Your task to perform on an android device: Open the calendar and show me this week's events Image 0: 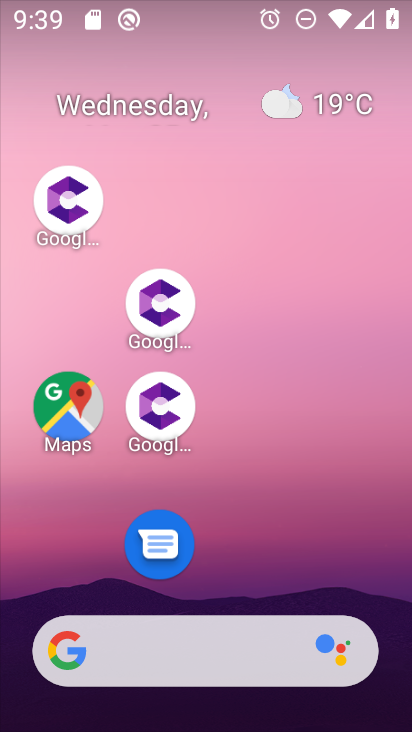
Step 0: drag from (253, 570) to (262, 151)
Your task to perform on an android device: Open the calendar and show me this week's events Image 1: 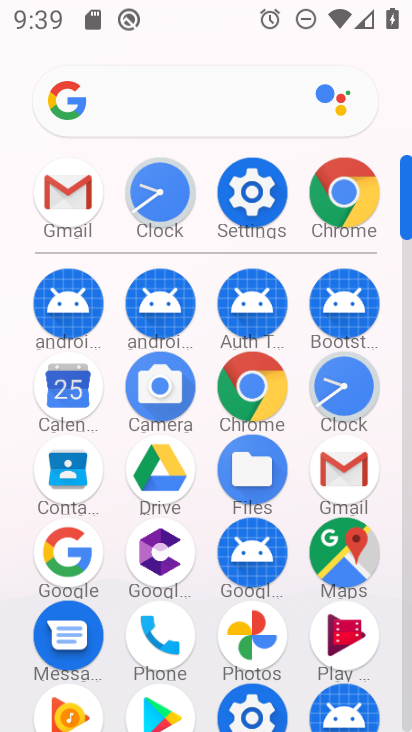
Step 1: click (59, 393)
Your task to perform on an android device: Open the calendar and show me this week's events Image 2: 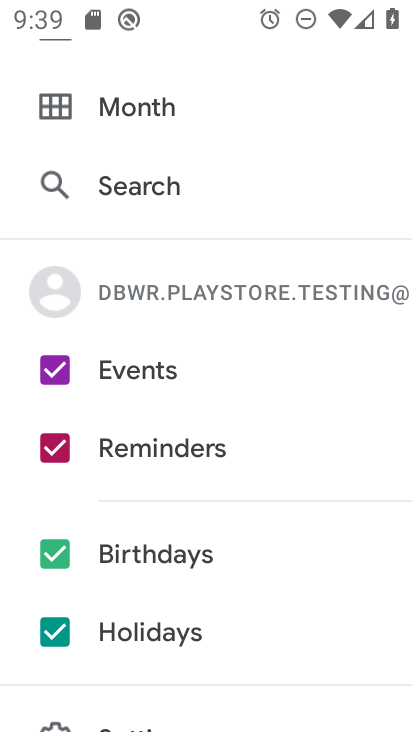
Step 2: drag from (207, 137) to (181, 461)
Your task to perform on an android device: Open the calendar and show me this week's events Image 3: 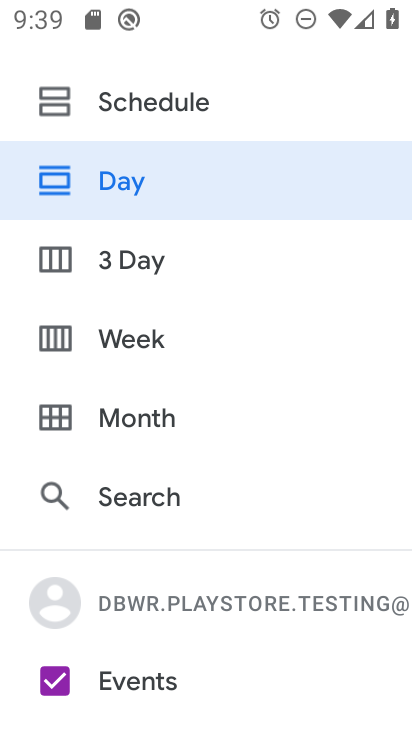
Step 3: drag from (231, 169) to (245, 477)
Your task to perform on an android device: Open the calendar and show me this week's events Image 4: 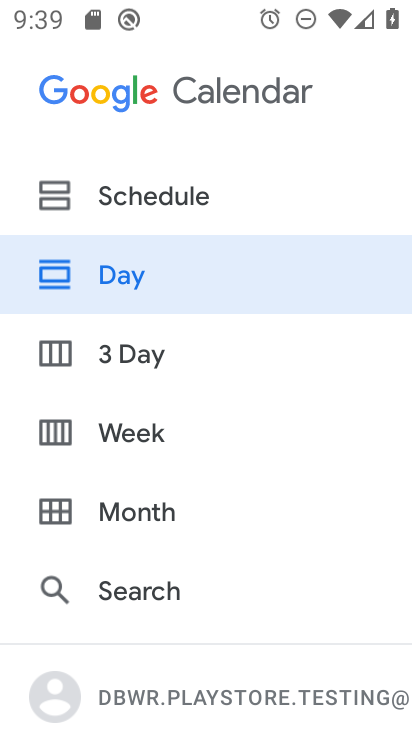
Step 4: click (139, 434)
Your task to perform on an android device: Open the calendar and show me this week's events Image 5: 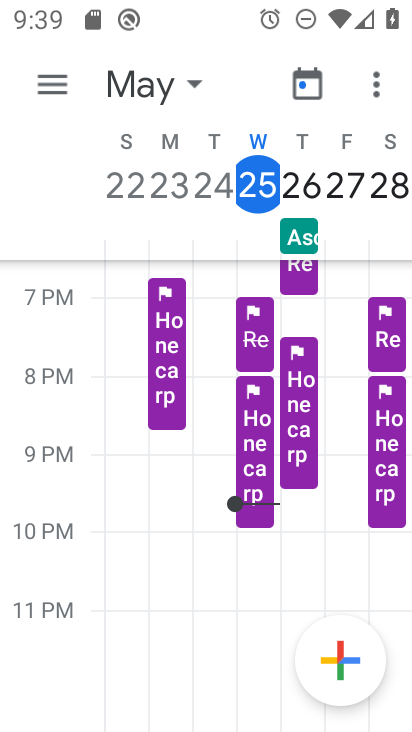
Step 5: task complete